Your task to perform on an android device: Check the news Image 0: 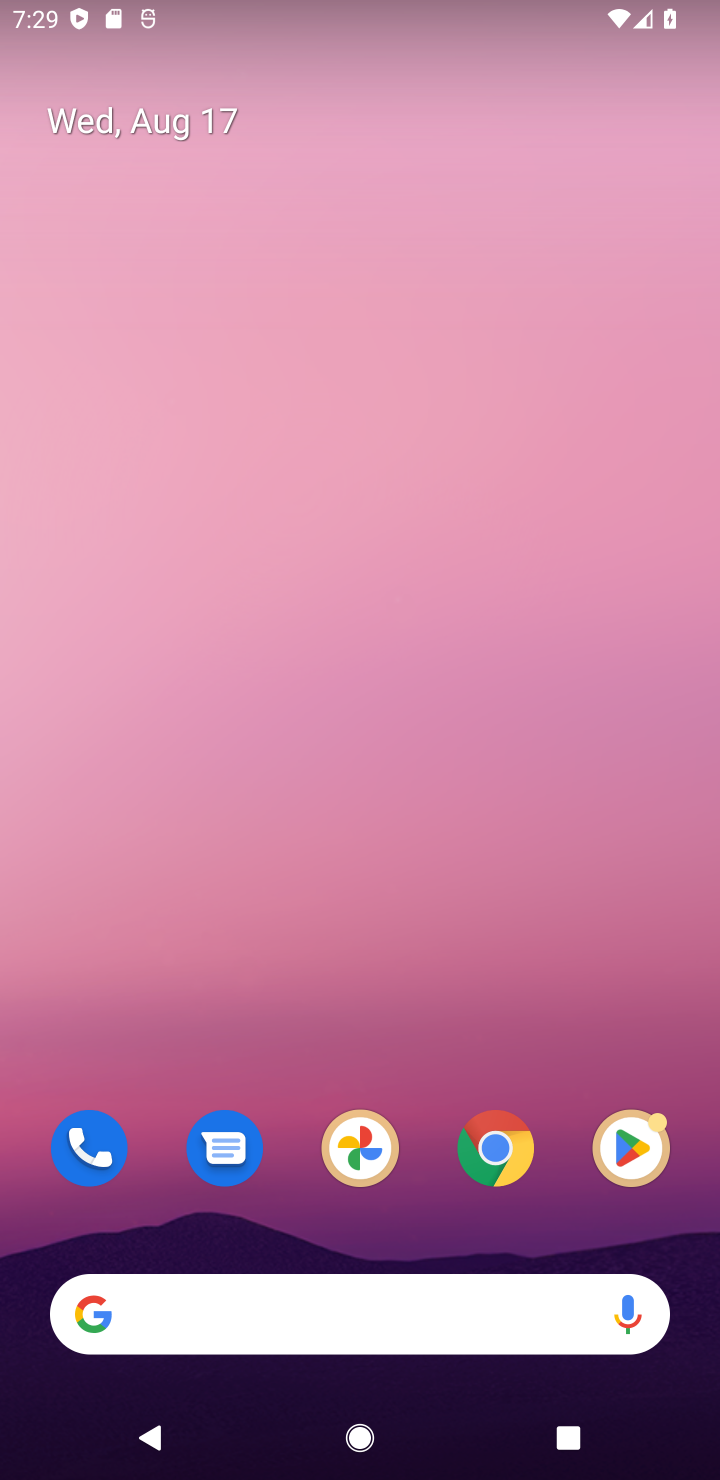
Step 0: drag from (48, 711) to (489, 772)
Your task to perform on an android device: Check the news Image 1: 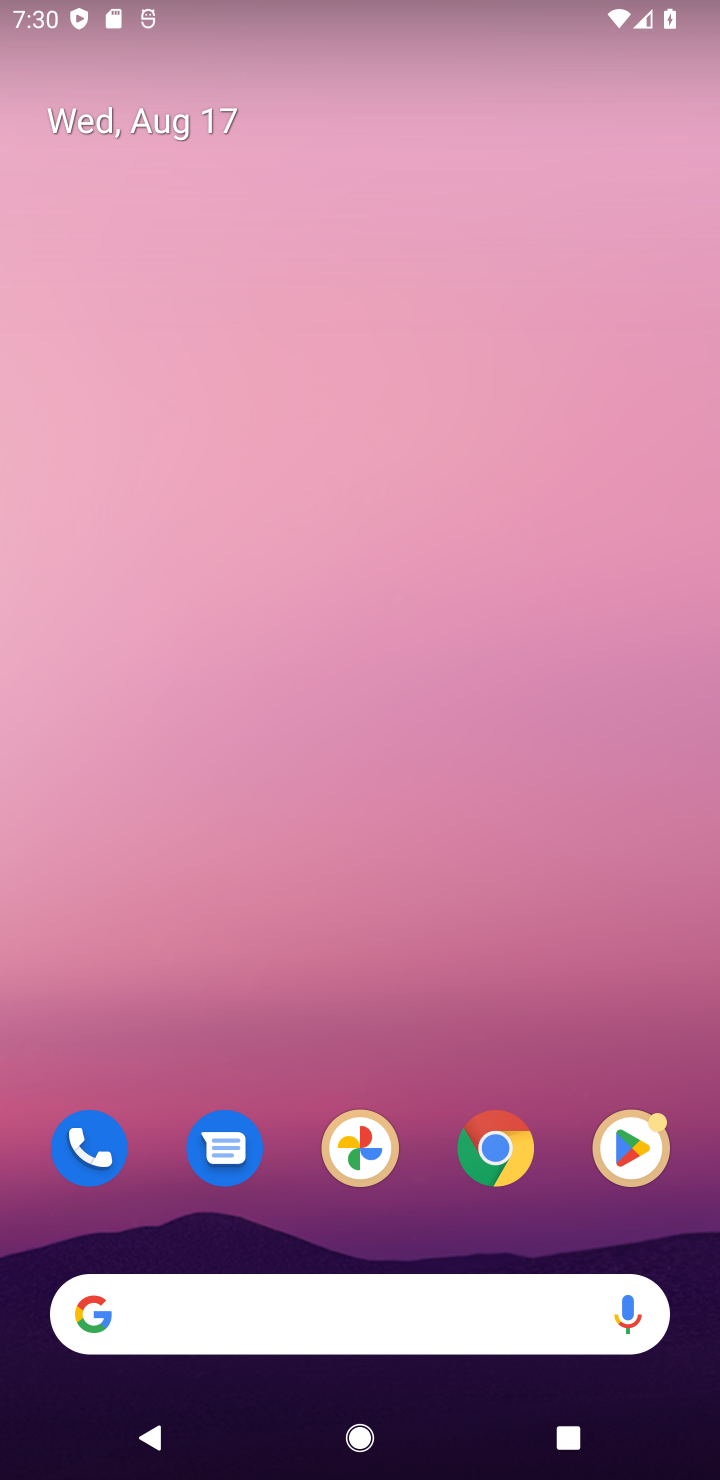
Step 1: task complete